Your task to perform on an android device: Empty the shopping cart on newegg. Add razer naga to the cart on newegg Image 0: 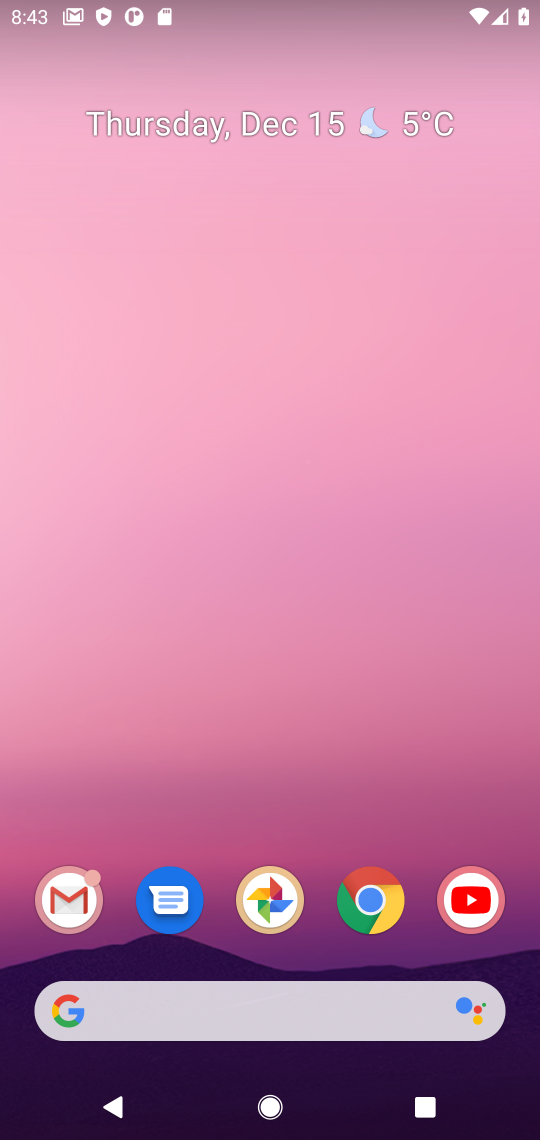
Step 0: click (374, 908)
Your task to perform on an android device: Empty the shopping cart on newegg. Add razer naga to the cart on newegg Image 1: 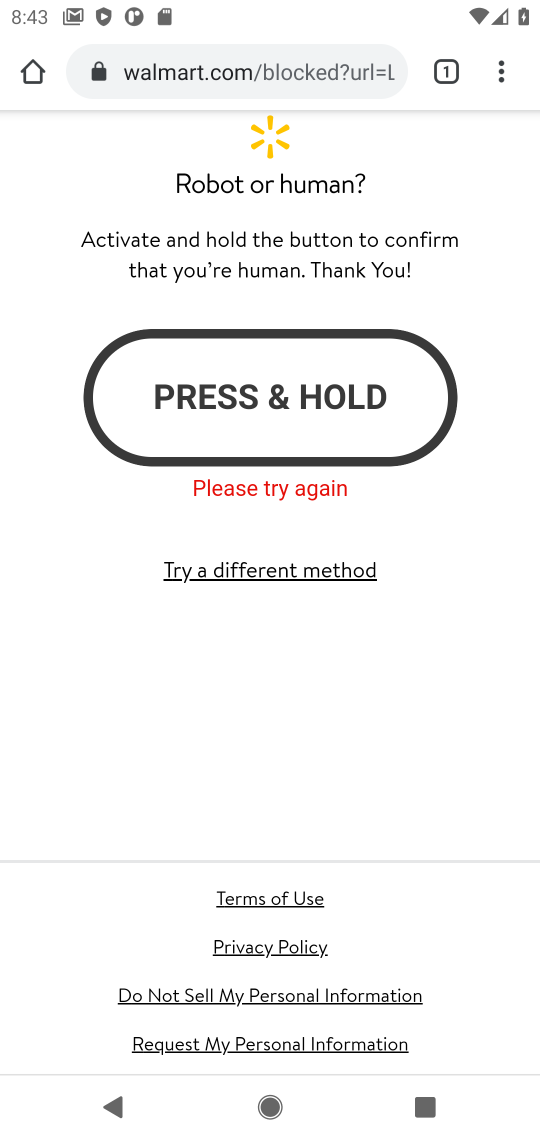
Step 1: click (234, 82)
Your task to perform on an android device: Empty the shopping cart on newegg. Add razer naga to the cart on newegg Image 2: 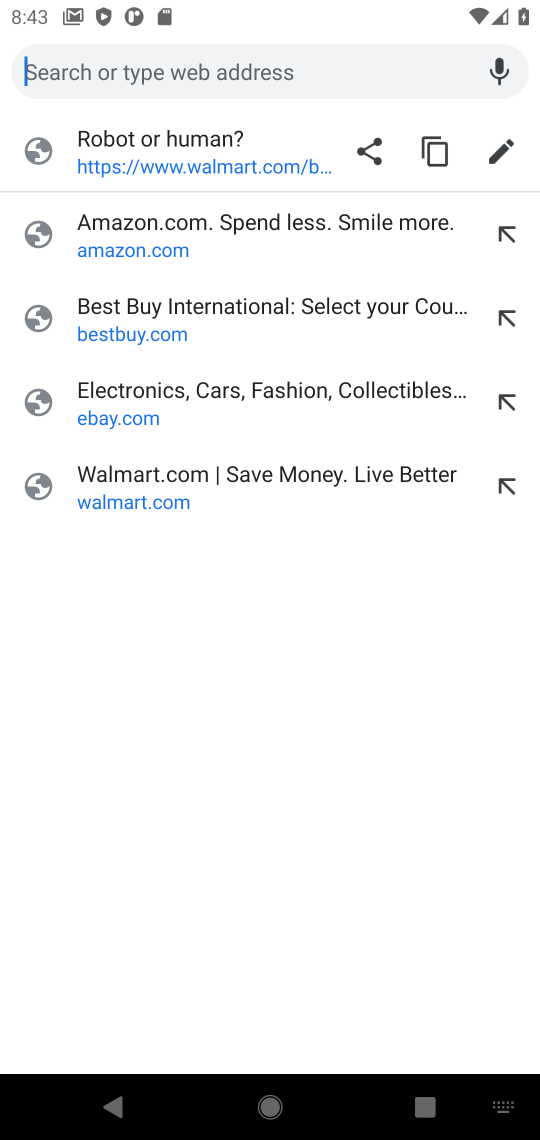
Step 2: type "newegg"
Your task to perform on an android device: Empty the shopping cart on newegg. Add razer naga to the cart on newegg Image 3: 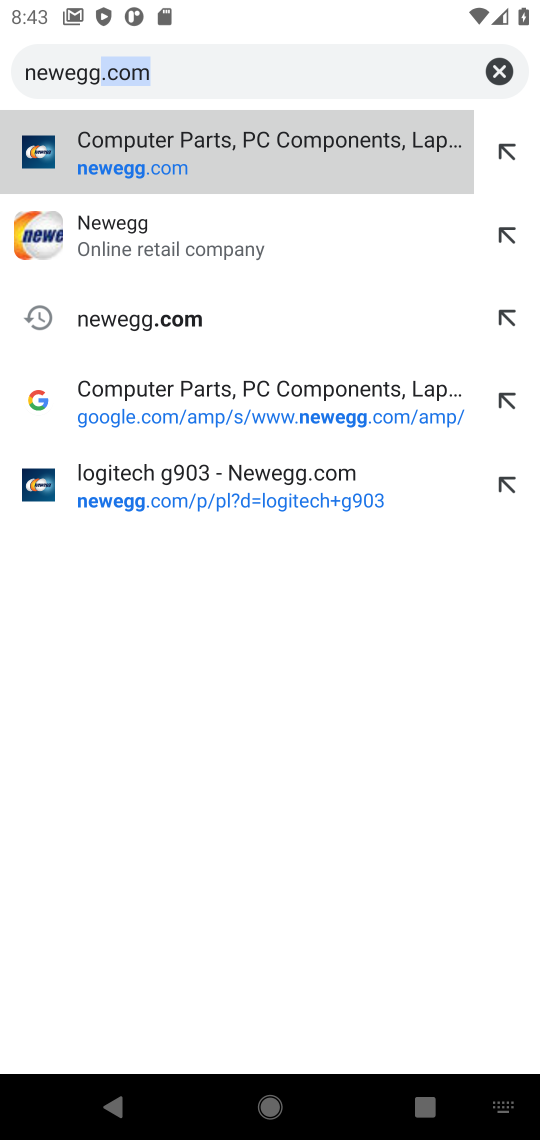
Step 3: click (147, 159)
Your task to perform on an android device: Empty the shopping cart on newegg. Add razer naga to the cart on newegg Image 4: 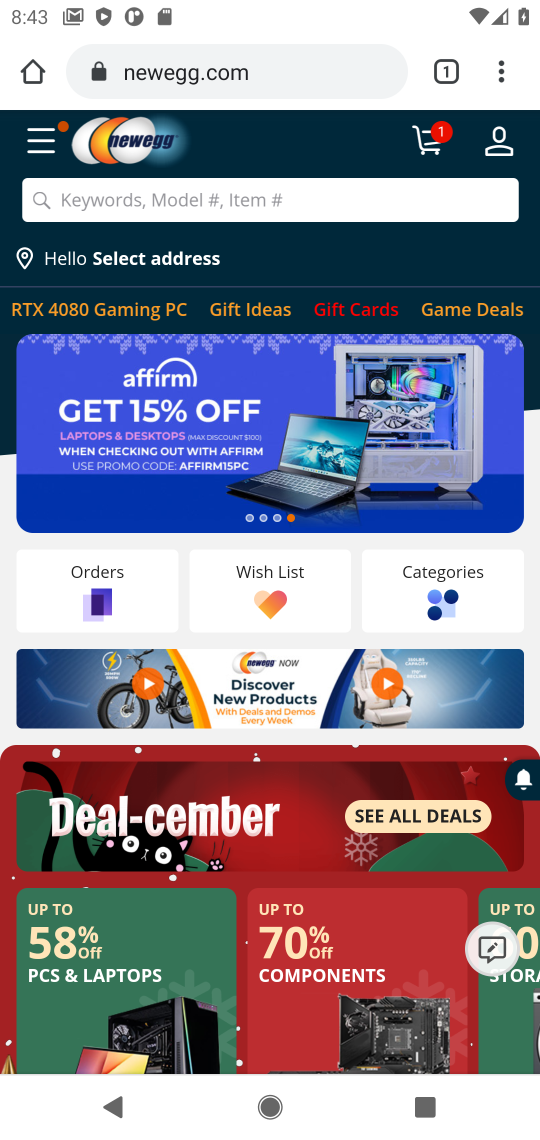
Step 4: click (290, 209)
Your task to perform on an android device: Empty the shopping cart on newegg. Add razer naga to the cart on newegg Image 5: 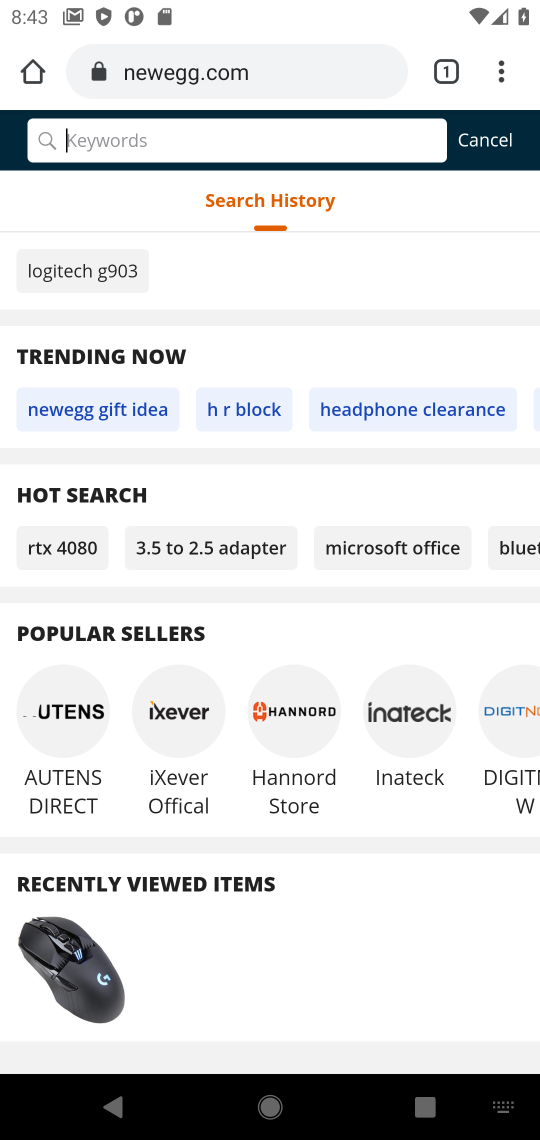
Step 5: type "newegg"
Your task to perform on an android device: Empty the shopping cart on newegg. Add razer naga to the cart on newegg Image 6: 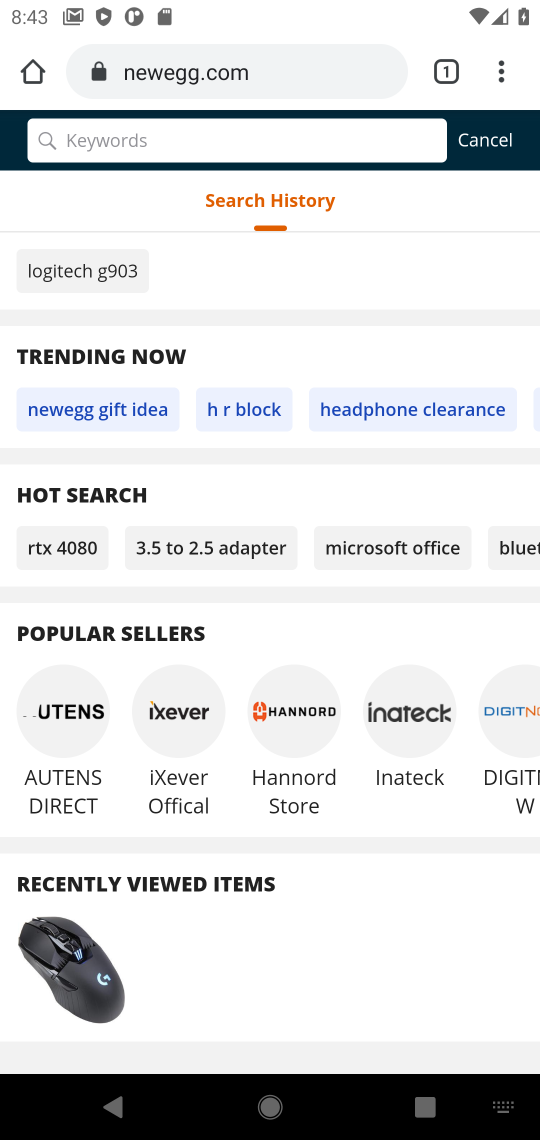
Step 6: click (488, 147)
Your task to perform on an android device: Empty the shopping cart on newegg. Add razer naga to the cart on newegg Image 7: 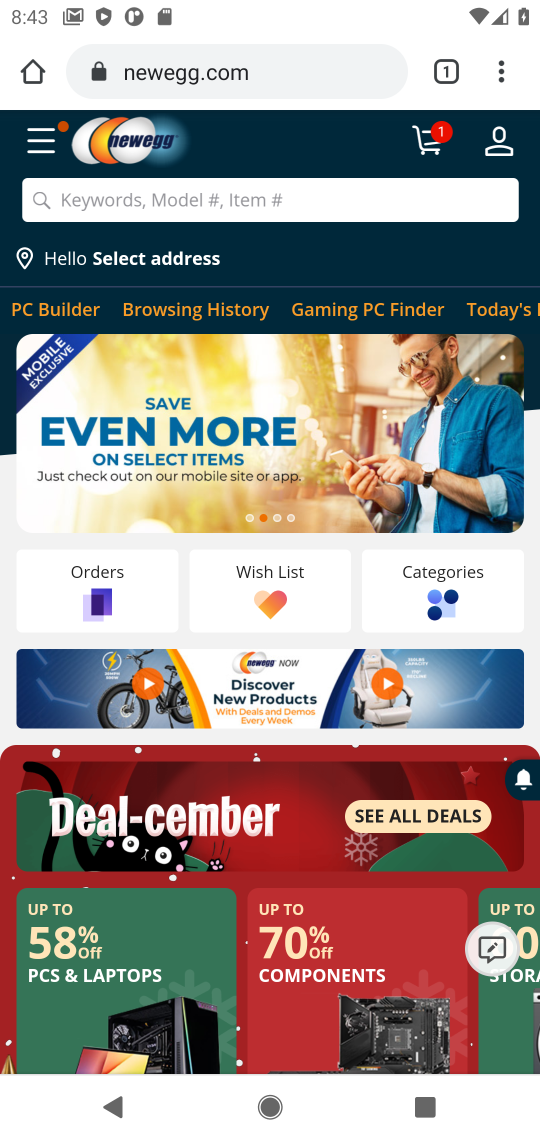
Step 7: click (429, 155)
Your task to perform on an android device: Empty the shopping cart on newegg. Add razer naga to the cart on newegg Image 8: 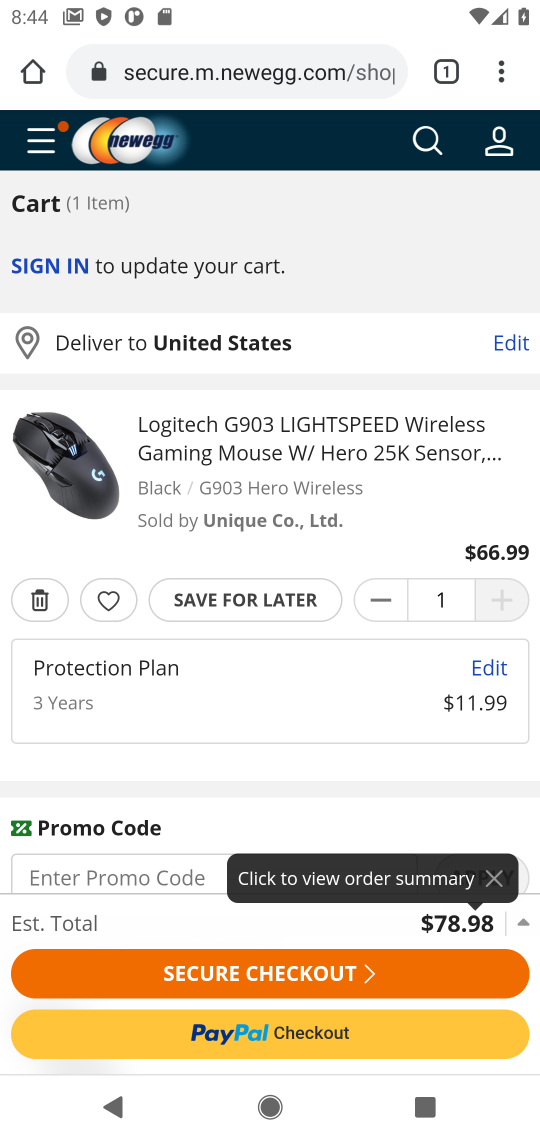
Step 8: click (41, 608)
Your task to perform on an android device: Empty the shopping cart on newegg. Add razer naga to the cart on newegg Image 9: 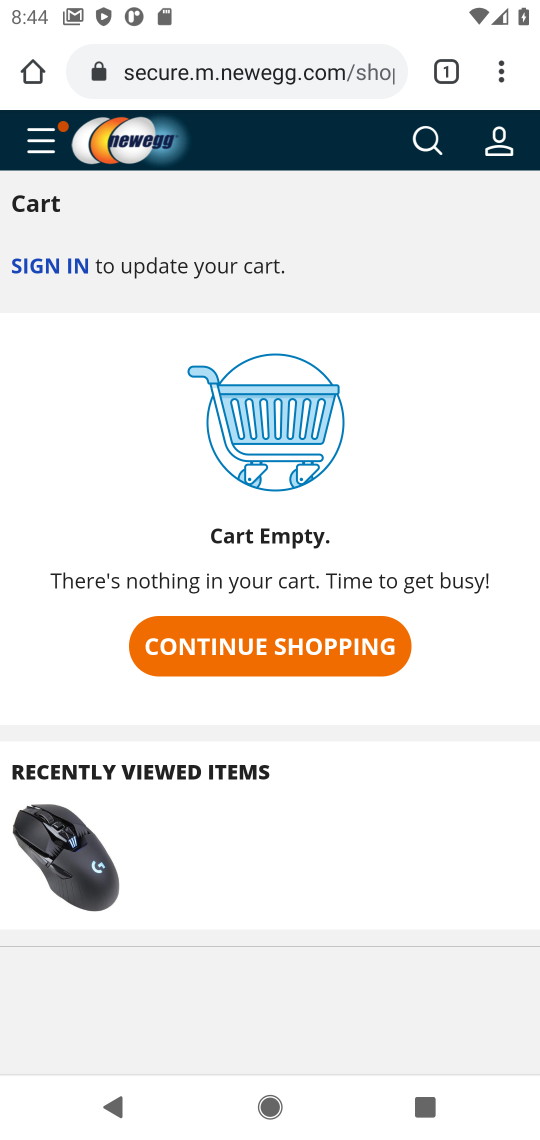
Step 9: click (422, 149)
Your task to perform on an android device: Empty the shopping cart on newegg. Add razer naga to the cart on newegg Image 10: 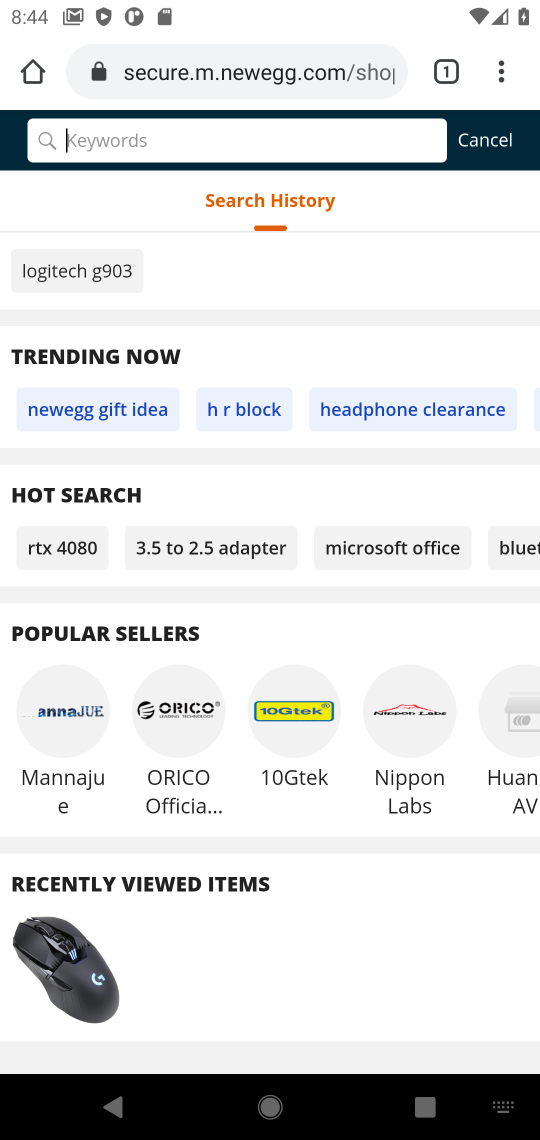
Step 10: type "razer naga"
Your task to perform on an android device: Empty the shopping cart on newegg. Add razer naga to the cart on newegg Image 11: 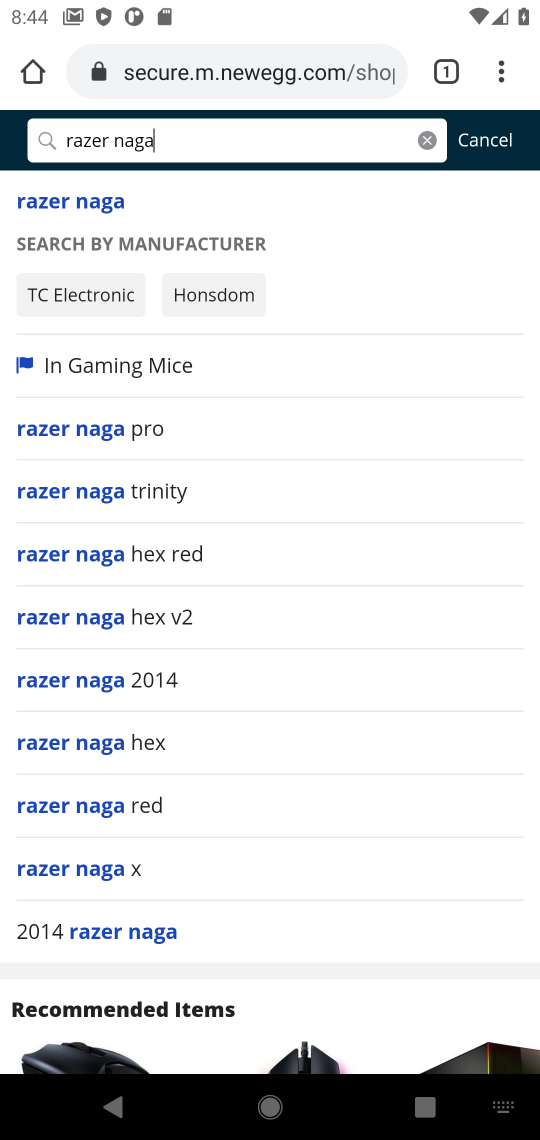
Step 11: press enter
Your task to perform on an android device: Empty the shopping cart on newegg. Add razer naga to the cart on newegg Image 12: 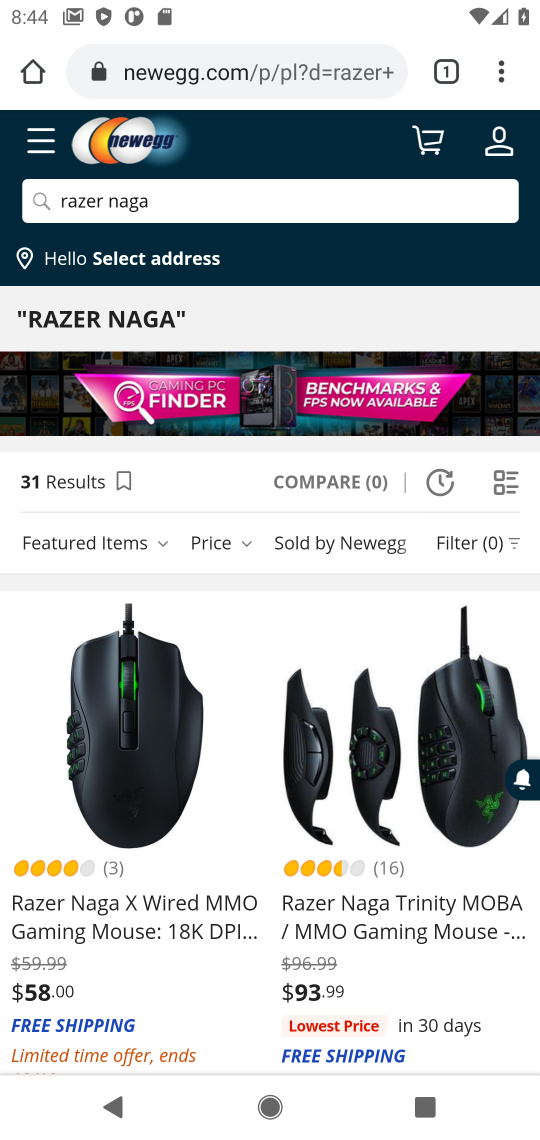
Step 12: click (161, 689)
Your task to perform on an android device: Empty the shopping cart on newegg. Add razer naga to the cart on newegg Image 13: 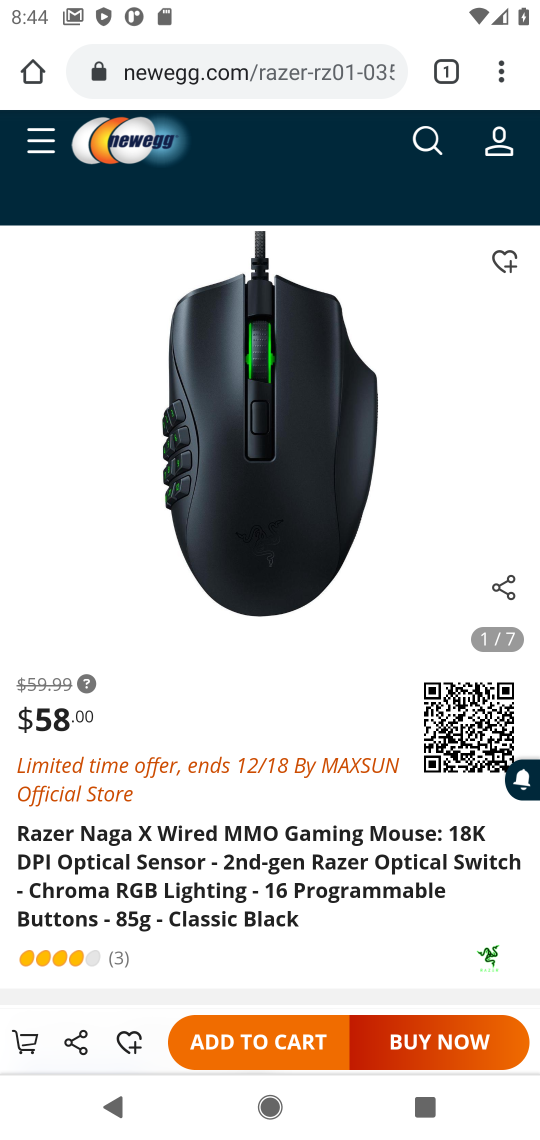
Step 13: click (274, 1043)
Your task to perform on an android device: Empty the shopping cart on newegg. Add razer naga to the cart on newegg Image 14: 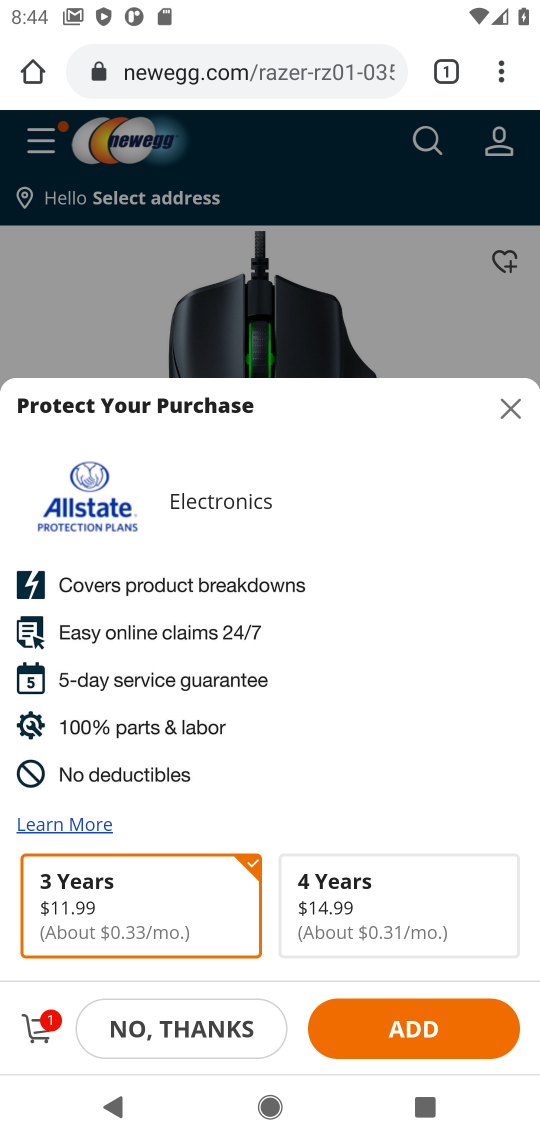
Step 14: click (389, 1029)
Your task to perform on an android device: Empty the shopping cart on newegg. Add razer naga to the cart on newegg Image 15: 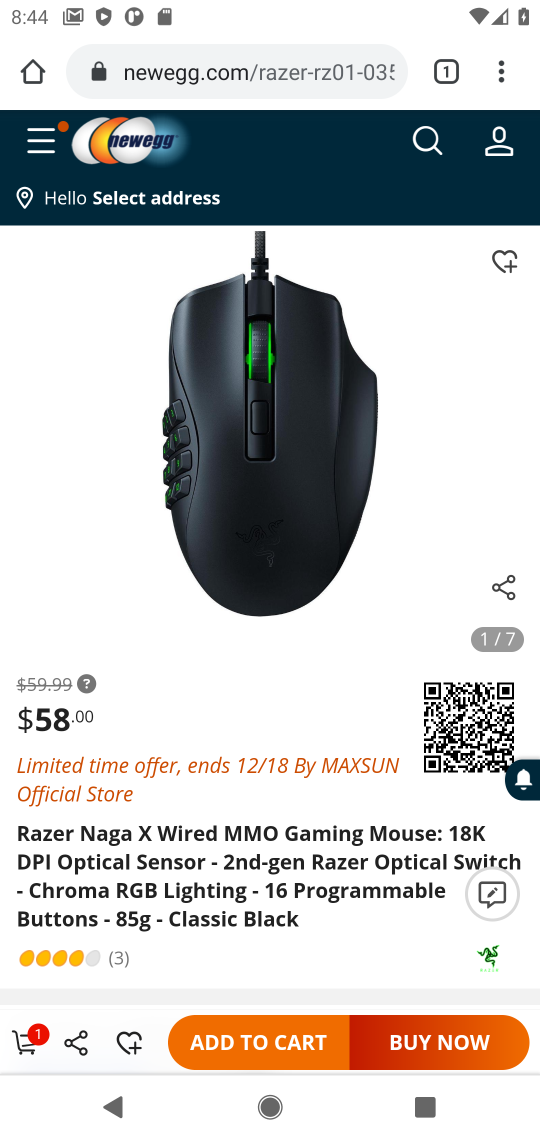
Step 15: click (31, 1042)
Your task to perform on an android device: Empty the shopping cart on newegg. Add razer naga to the cart on newegg Image 16: 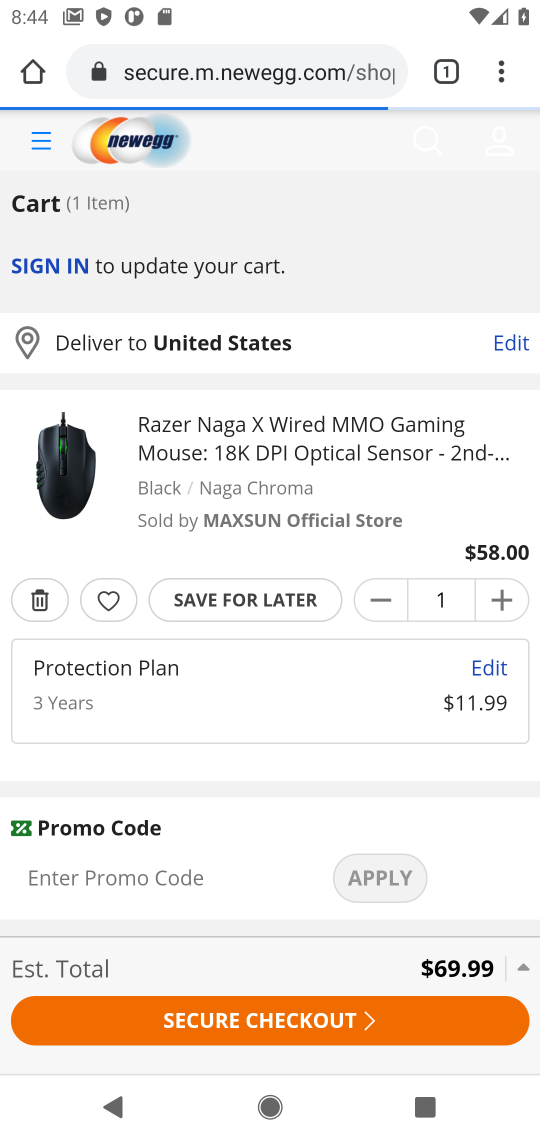
Step 16: task complete